Your task to perform on an android device: see sites visited before in the chrome app Image 0: 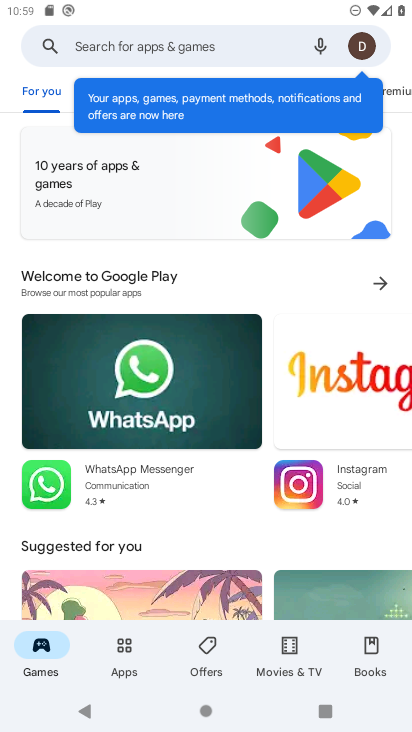
Step 0: press home button
Your task to perform on an android device: see sites visited before in the chrome app Image 1: 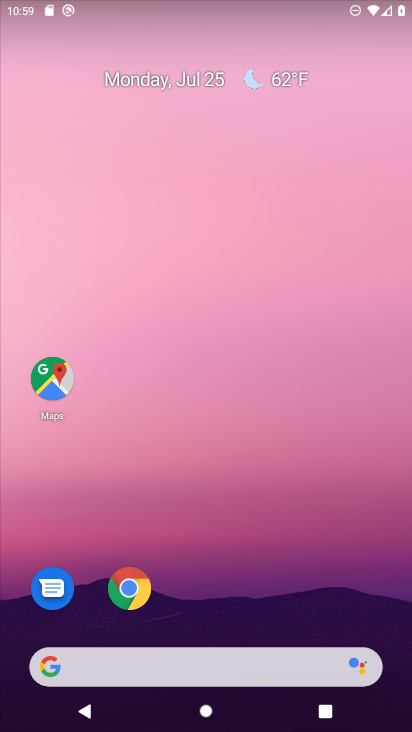
Step 1: task complete